Your task to perform on an android device: Go to network settings Image 0: 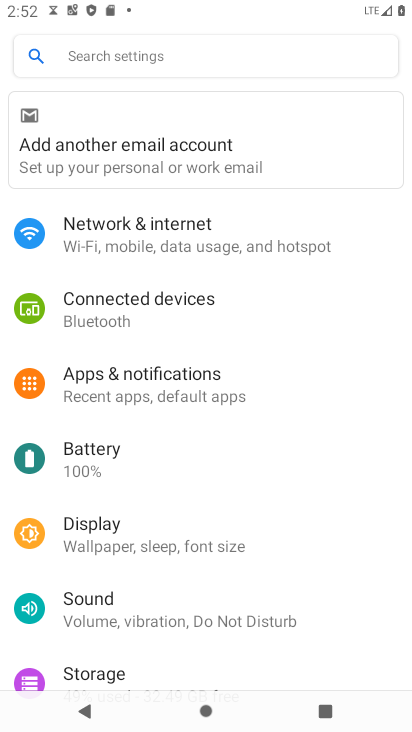
Step 0: click (162, 227)
Your task to perform on an android device: Go to network settings Image 1: 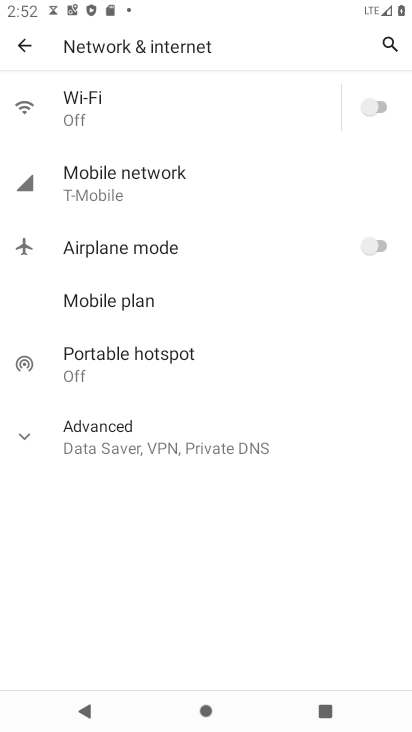
Step 1: task complete